Your task to perform on an android device: Open Chrome and go to settings Image 0: 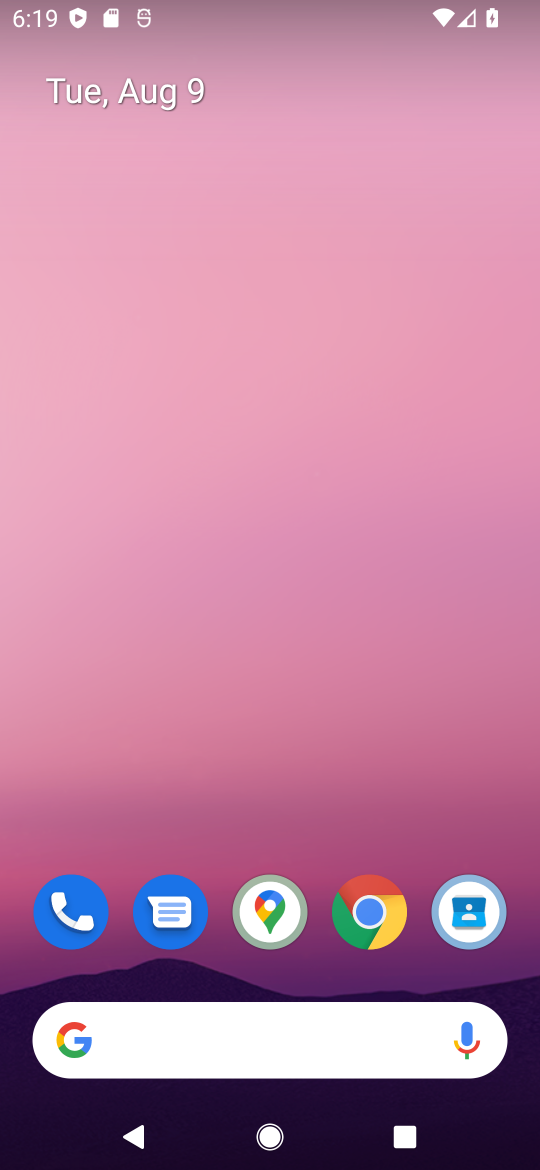
Step 0: press home button
Your task to perform on an android device: Open Chrome and go to settings Image 1: 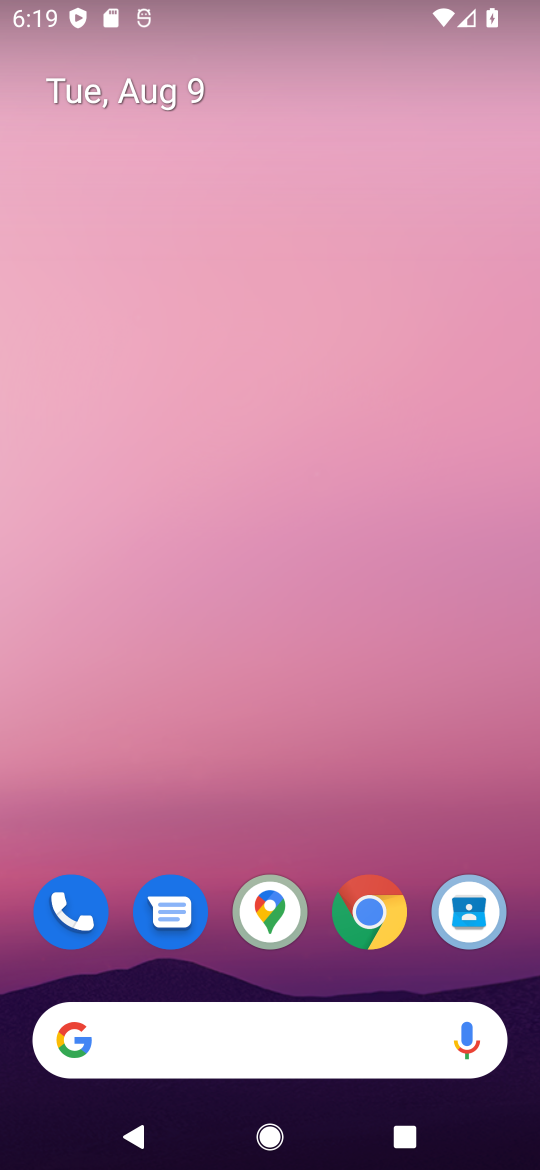
Step 1: click (371, 905)
Your task to perform on an android device: Open Chrome and go to settings Image 2: 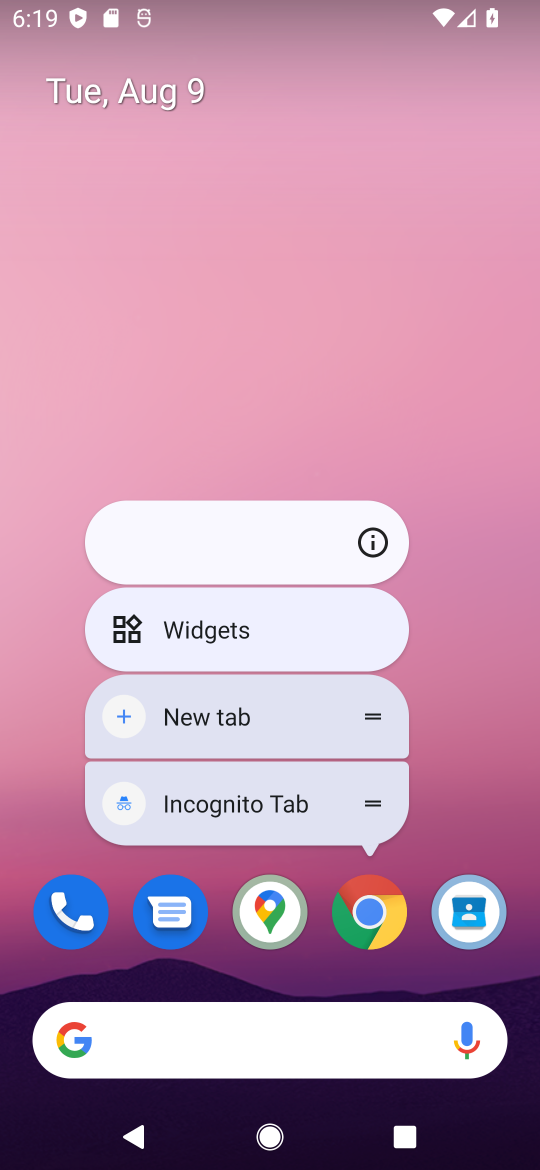
Step 2: click (373, 922)
Your task to perform on an android device: Open Chrome and go to settings Image 3: 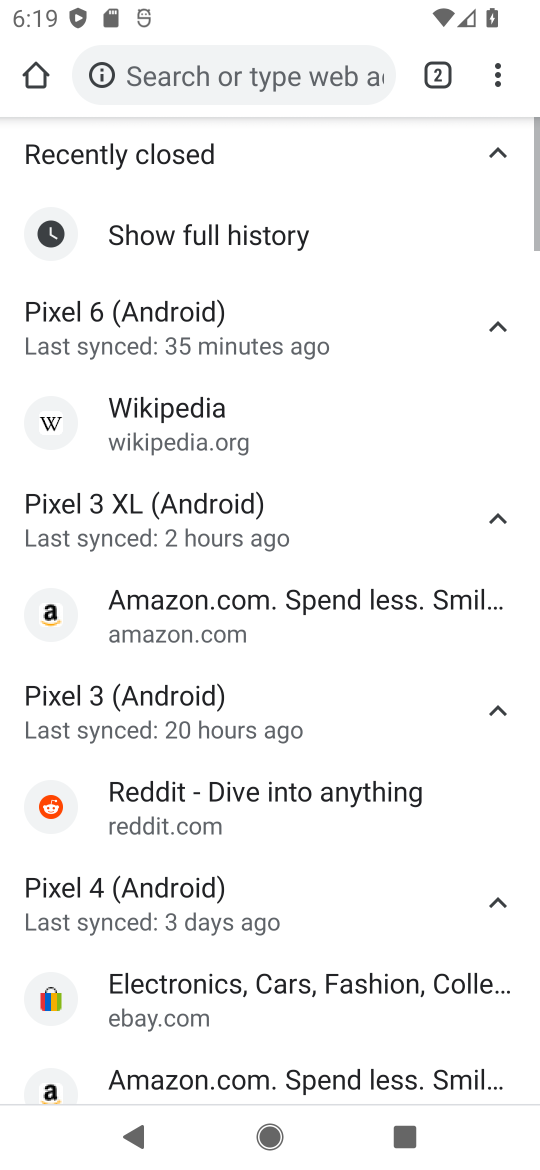
Step 3: task complete